Your task to perform on an android device: Search for Italian restaurants on Maps Image 0: 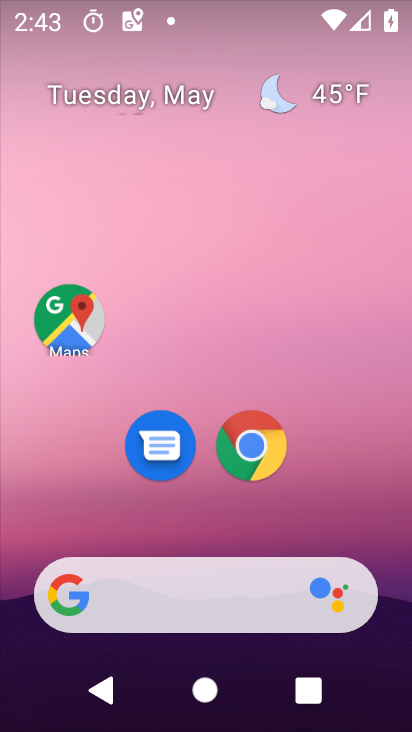
Step 0: click (68, 318)
Your task to perform on an android device: Search for Italian restaurants on Maps Image 1: 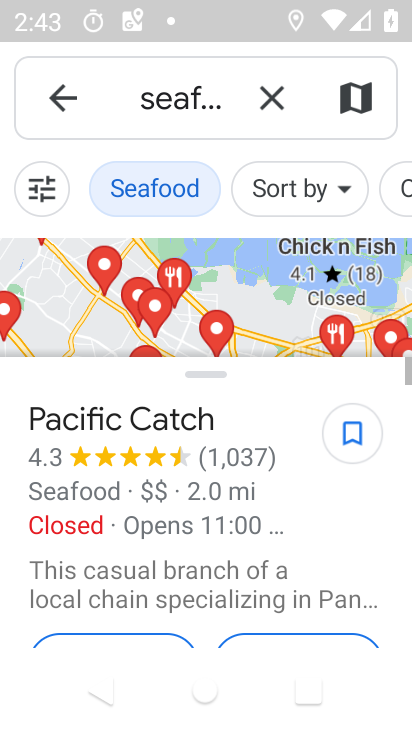
Step 1: click (271, 91)
Your task to perform on an android device: Search for Italian restaurants on Maps Image 2: 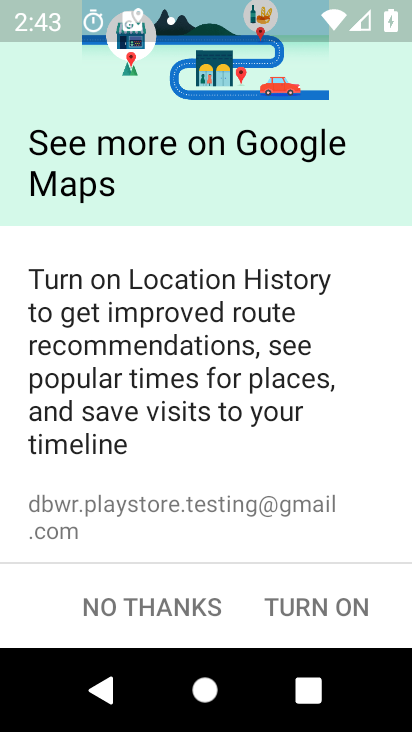
Step 2: click (140, 608)
Your task to perform on an android device: Search for Italian restaurants on Maps Image 3: 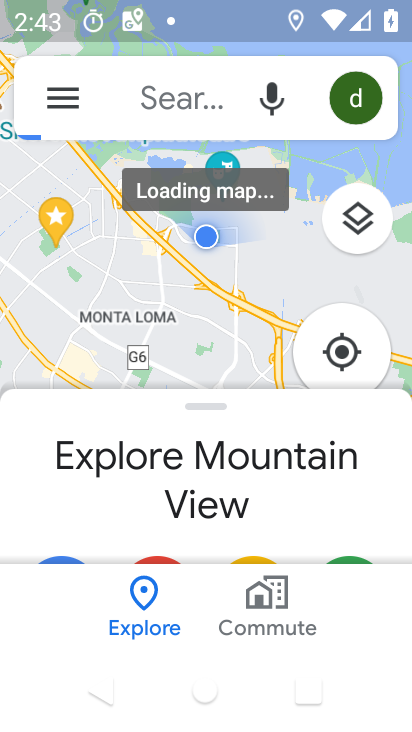
Step 3: click (195, 89)
Your task to perform on an android device: Search for Italian restaurants on Maps Image 4: 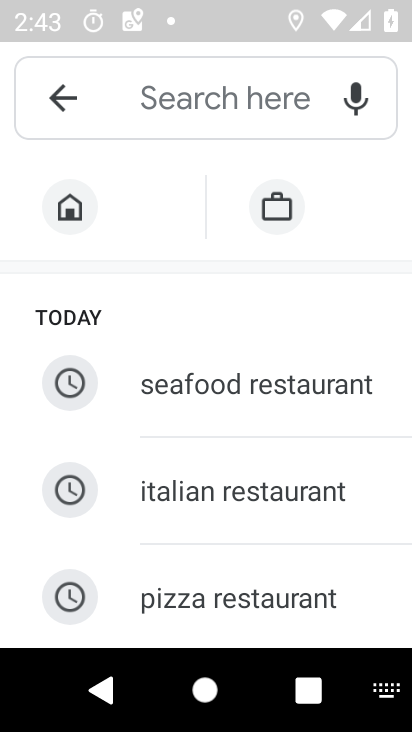
Step 4: click (237, 517)
Your task to perform on an android device: Search for Italian restaurants on Maps Image 5: 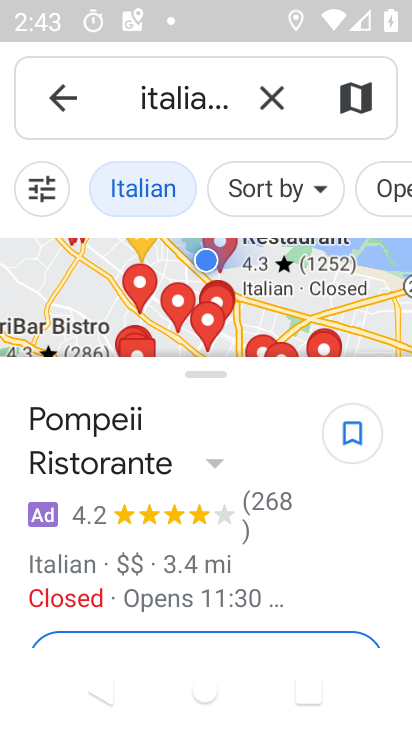
Step 5: task complete